Your task to perform on an android device: Open calendar and show me the fourth week of next month Image 0: 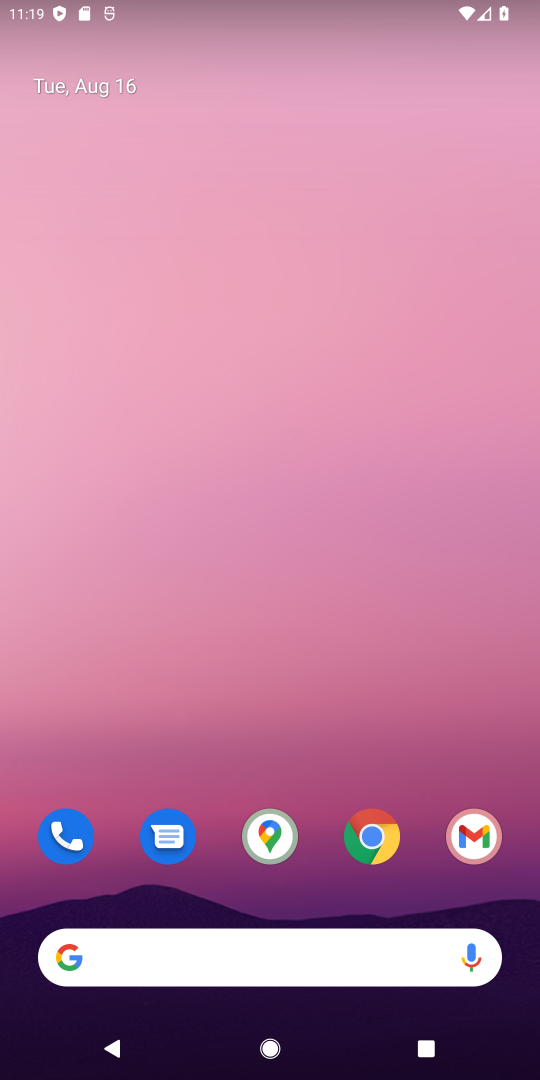
Step 0: drag from (283, 902) to (405, 173)
Your task to perform on an android device: Open calendar and show me the fourth week of next month Image 1: 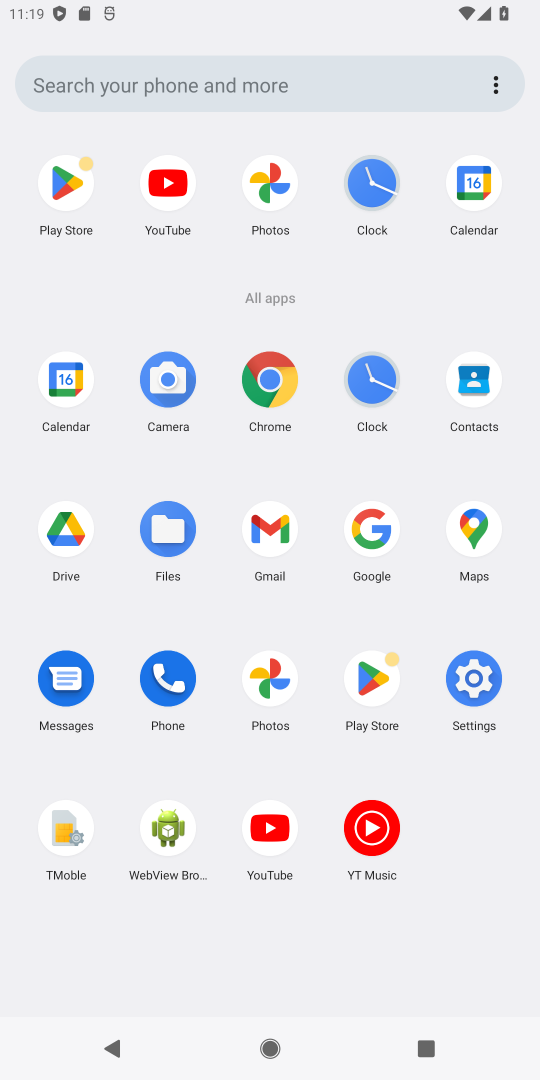
Step 1: click (474, 180)
Your task to perform on an android device: Open calendar and show me the fourth week of next month Image 2: 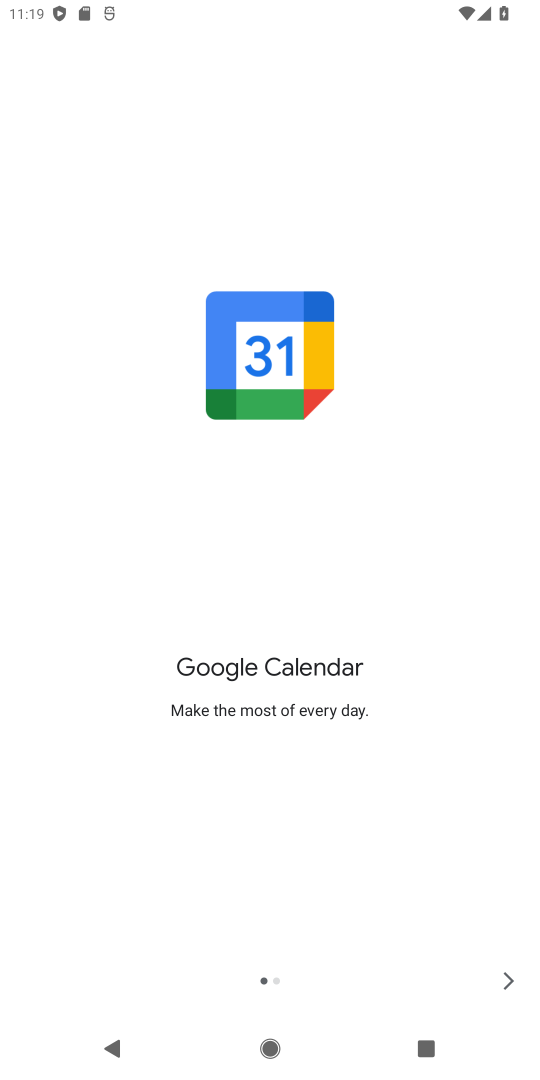
Step 2: click (507, 979)
Your task to perform on an android device: Open calendar and show me the fourth week of next month Image 3: 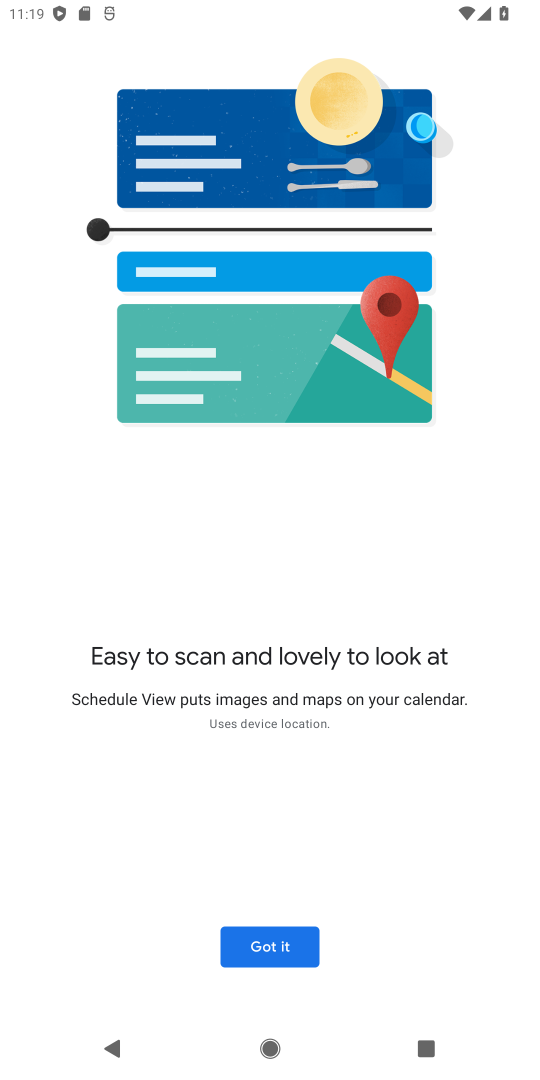
Step 3: click (277, 955)
Your task to perform on an android device: Open calendar and show me the fourth week of next month Image 4: 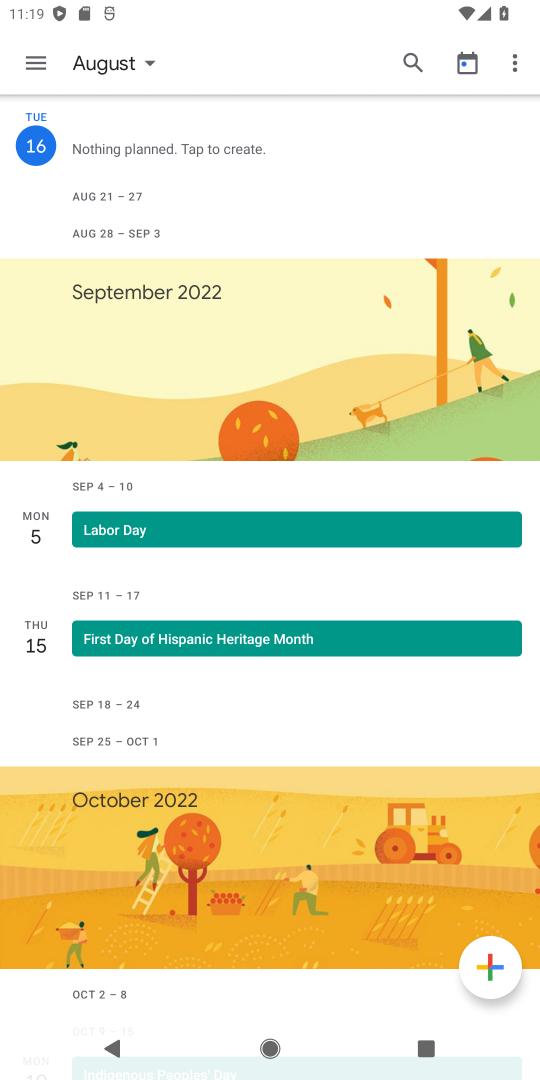
Step 4: click (151, 67)
Your task to perform on an android device: Open calendar and show me the fourth week of next month Image 5: 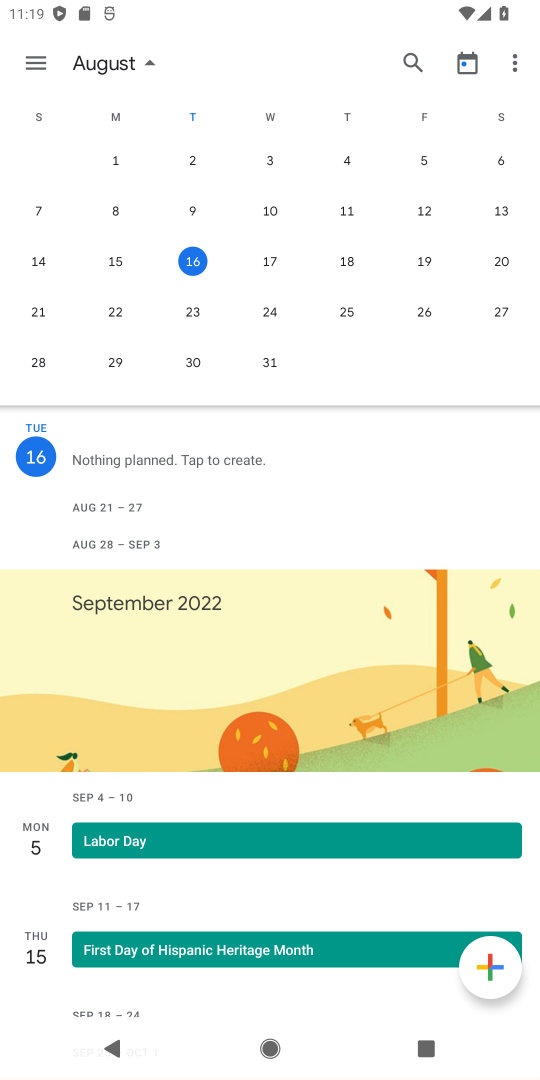
Step 5: drag from (465, 266) to (0, 350)
Your task to perform on an android device: Open calendar and show me the fourth week of next month Image 6: 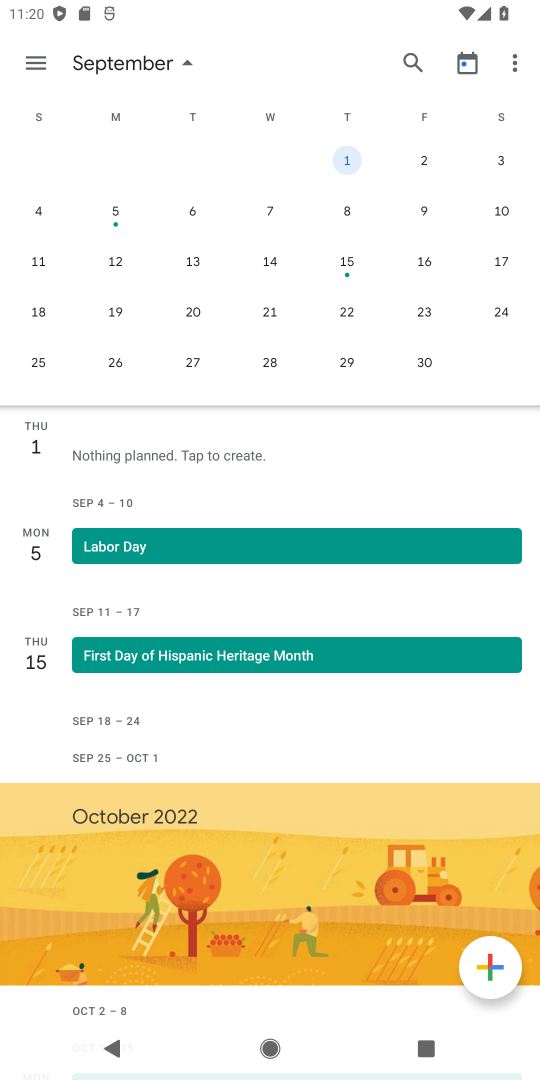
Step 6: click (122, 365)
Your task to perform on an android device: Open calendar and show me the fourth week of next month Image 7: 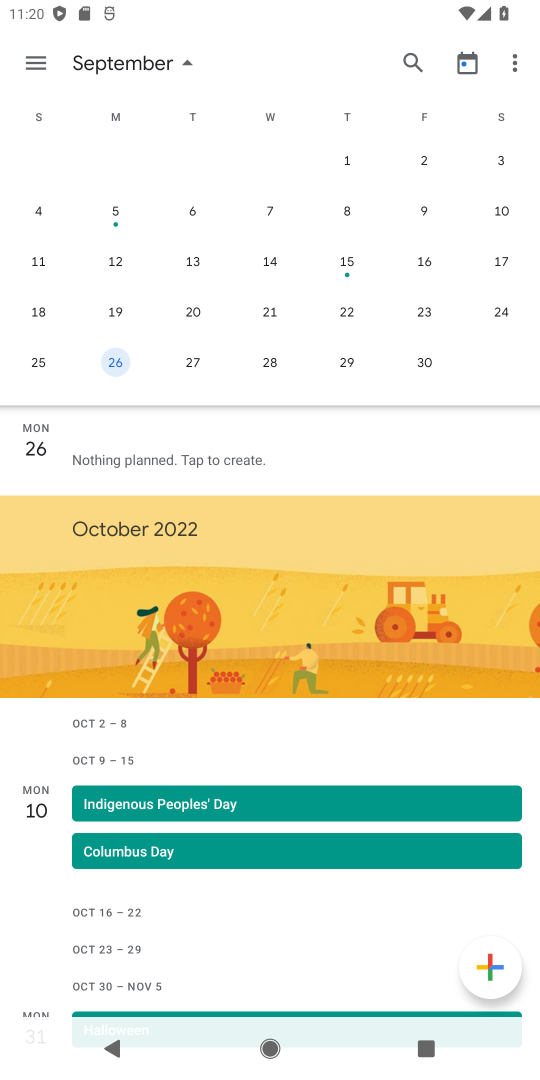
Step 7: click (39, 61)
Your task to perform on an android device: Open calendar and show me the fourth week of next month Image 8: 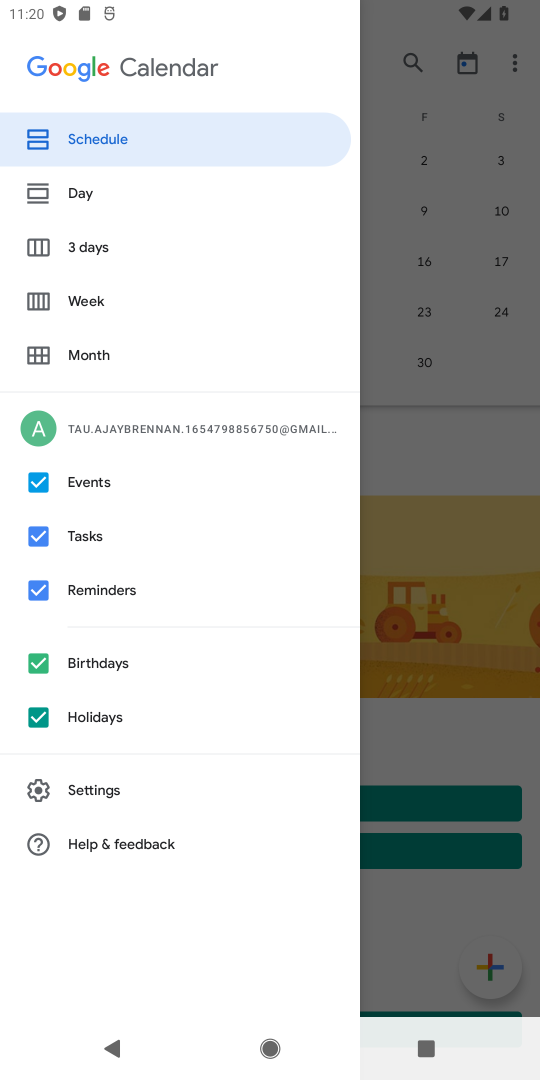
Step 8: click (92, 302)
Your task to perform on an android device: Open calendar and show me the fourth week of next month Image 9: 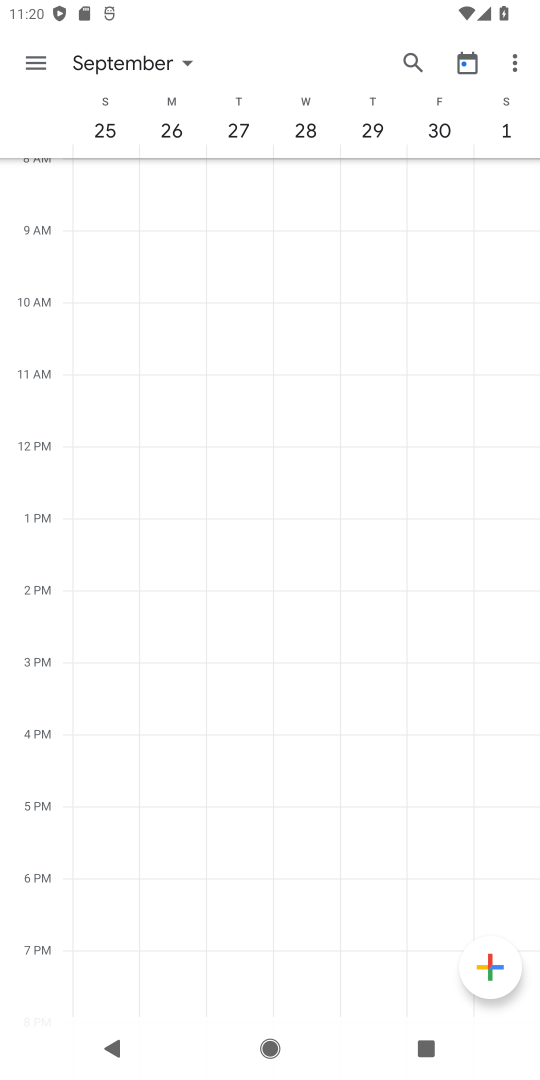
Step 9: task complete